Your task to perform on an android device: Show me recent news Image 0: 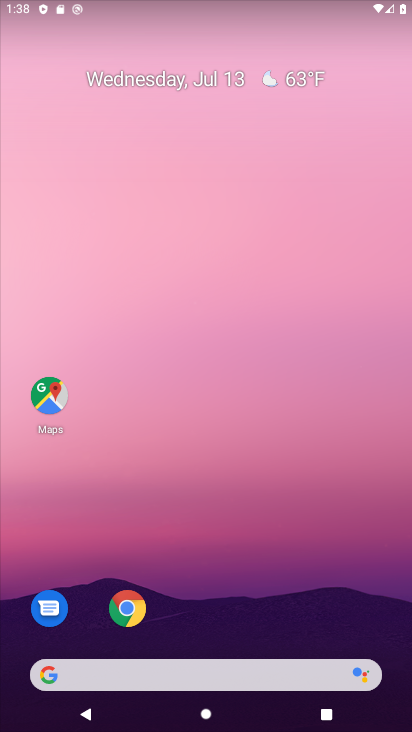
Step 0: drag from (1, 190) to (373, 227)
Your task to perform on an android device: Show me recent news Image 1: 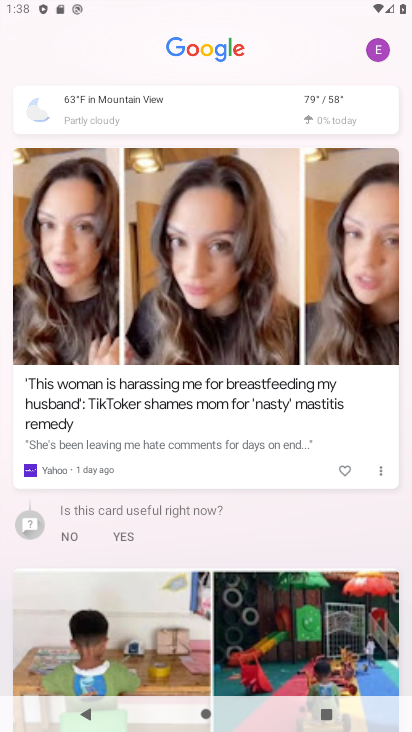
Step 1: task complete